Your task to perform on an android device: check google app version Image 0: 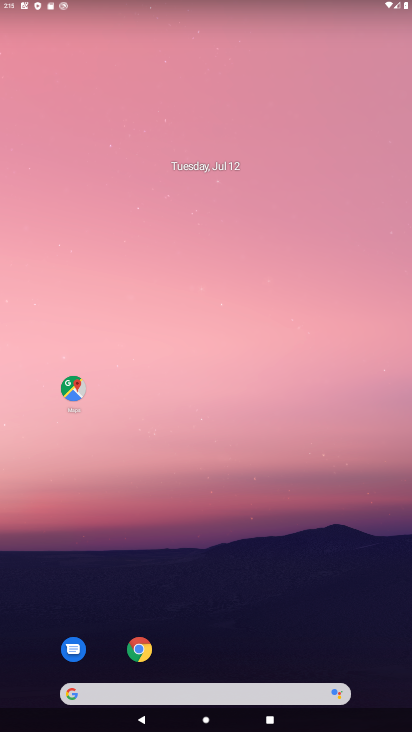
Step 0: click (144, 651)
Your task to perform on an android device: check google app version Image 1: 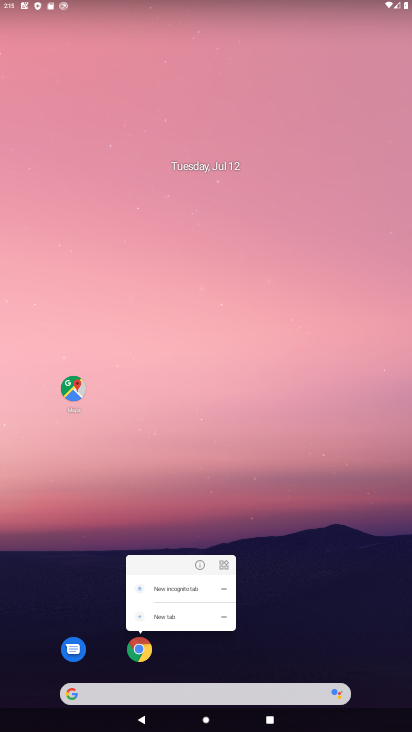
Step 1: click (198, 567)
Your task to perform on an android device: check google app version Image 2: 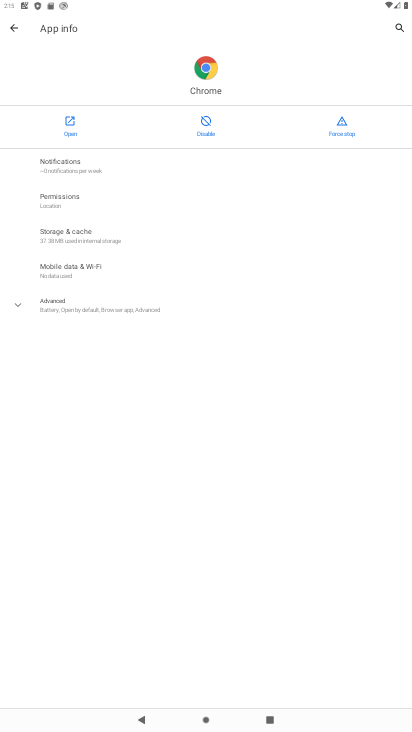
Step 2: click (110, 305)
Your task to perform on an android device: check google app version Image 3: 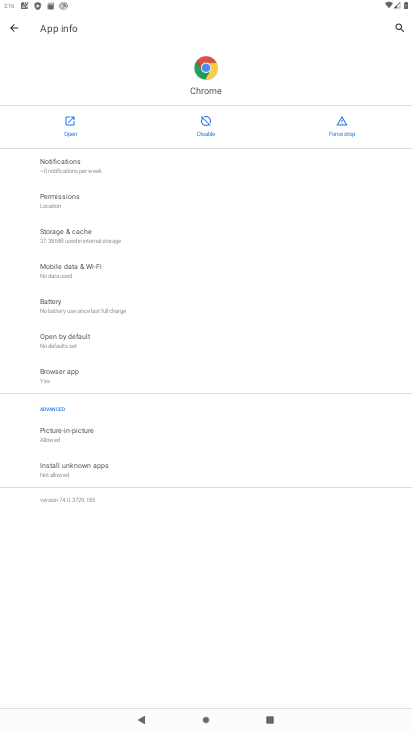
Step 3: task complete